Your task to perform on an android device: toggle translation in the chrome app Image 0: 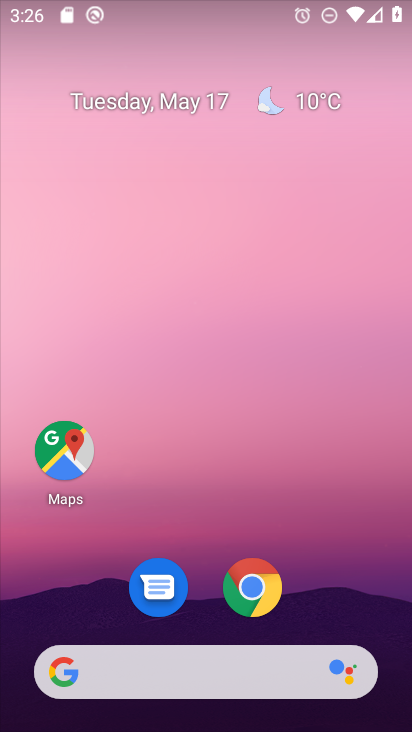
Step 0: drag from (338, 530) to (236, 17)
Your task to perform on an android device: toggle translation in the chrome app Image 1: 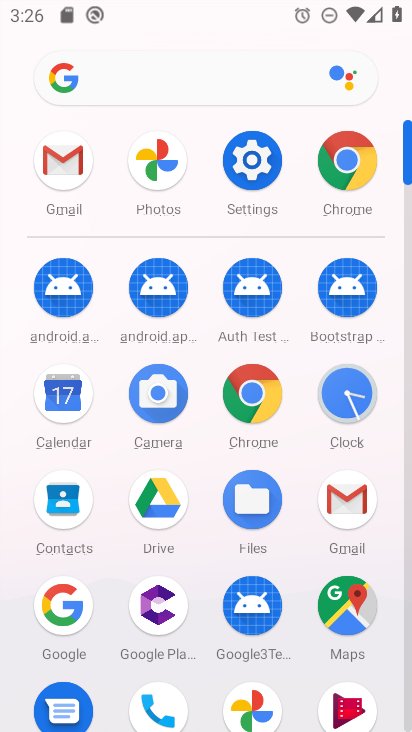
Step 1: drag from (7, 563) to (20, 201)
Your task to perform on an android device: toggle translation in the chrome app Image 2: 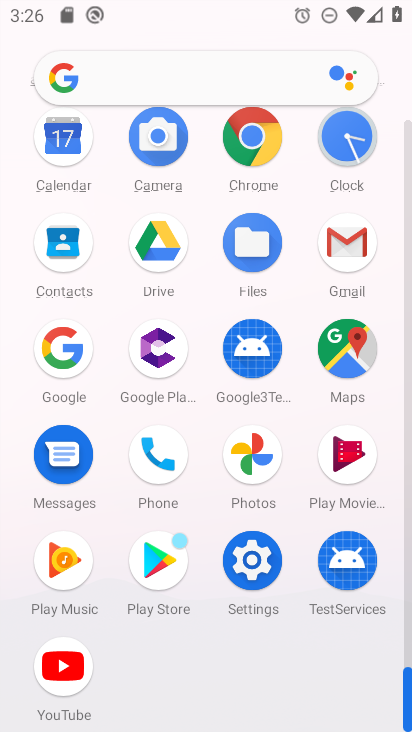
Step 2: click (249, 126)
Your task to perform on an android device: toggle translation in the chrome app Image 3: 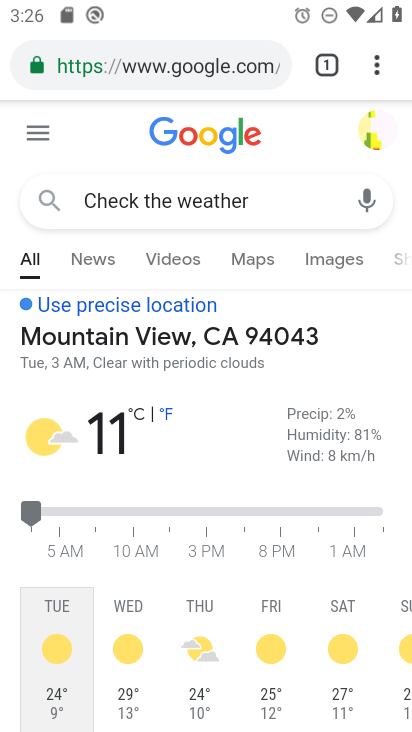
Step 3: drag from (372, 54) to (171, 632)
Your task to perform on an android device: toggle translation in the chrome app Image 4: 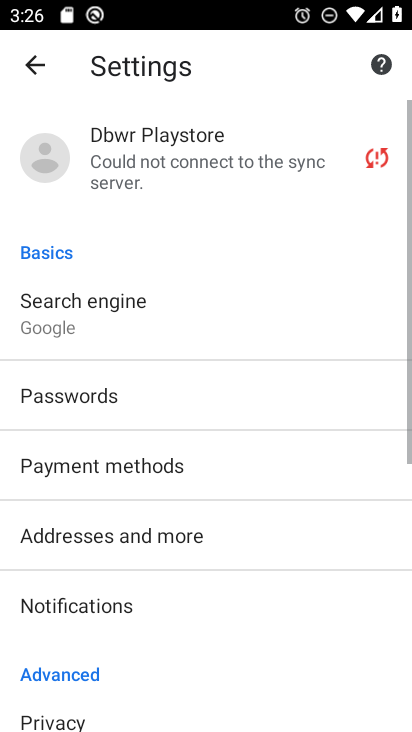
Step 4: drag from (265, 531) to (247, 220)
Your task to perform on an android device: toggle translation in the chrome app Image 5: 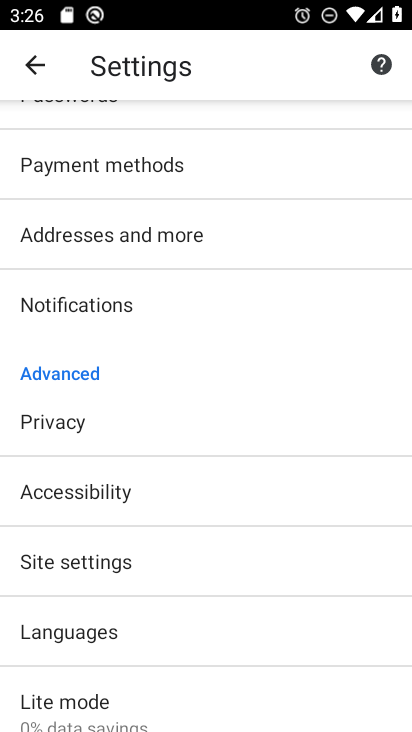
Step 5: drag from (217, 613) to (251, 274)
Your task to perform on an android device: toggle translation in the chrome app Image 6: 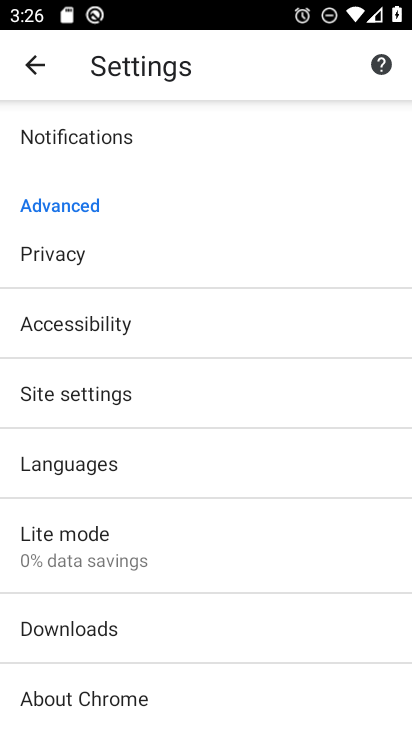
Step 6: click (130, 445)
Your task to perform on an android device: toggle translation in the chrome app Image 7: 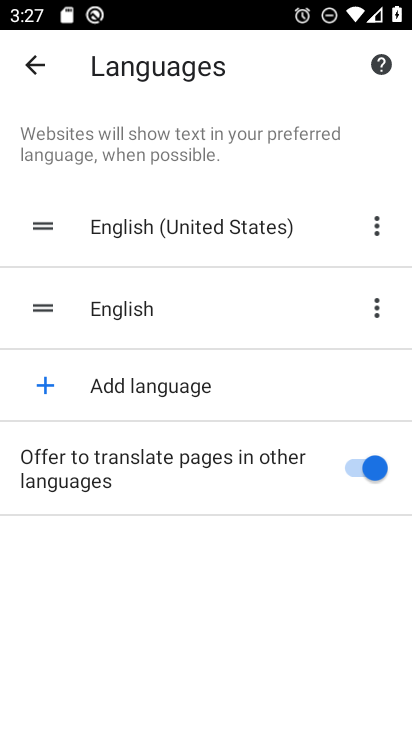
Step 7: click (361, 473)
Your task to perform on an android device: toggle translation in the chrome app Image 8: 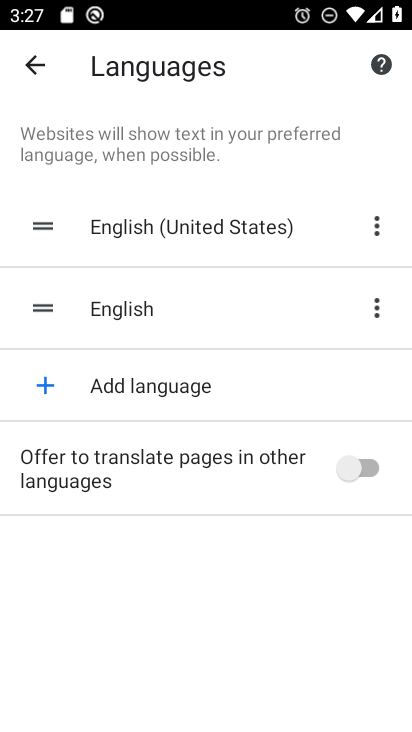
Step 8: task complete